Your task to perform on an android device: Go to settings Image 0: 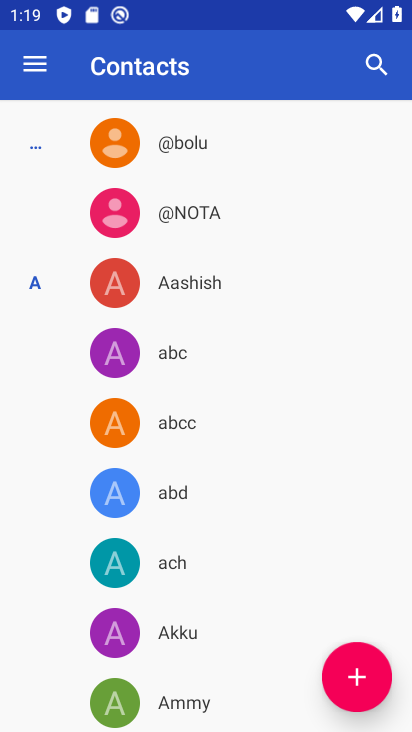
Step 0: press home button
Your task to perform on an android device: Go to settings Image 1: 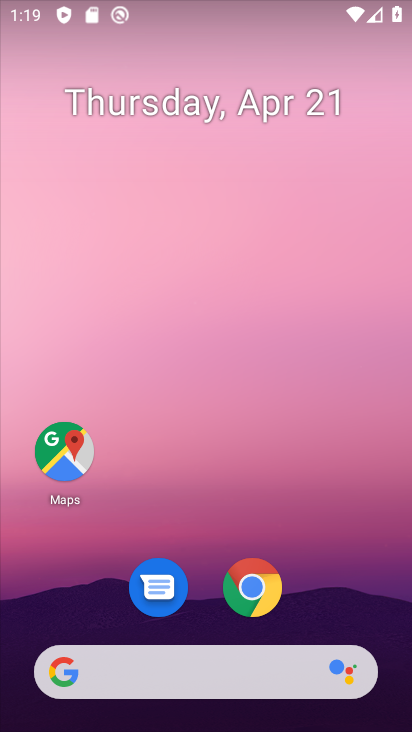
Step 1: drag from (337, 601) to (325, 78)
Your task to perform on an android device: Go to settings Image 2: 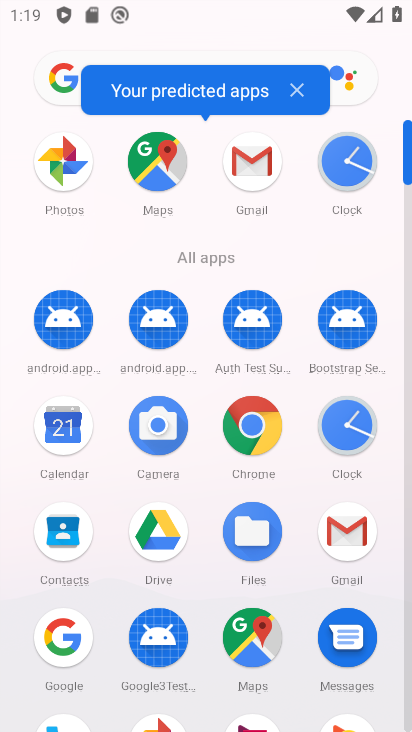
Step 2: click (406, 693)
Your task to perform on an android device: Go to settings Image 3: 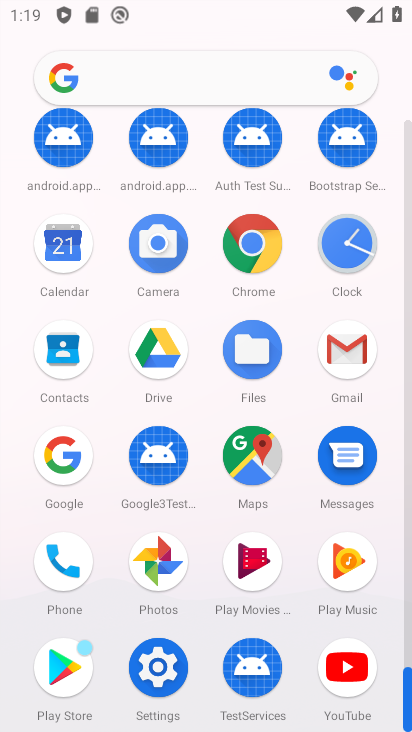
Step 3: click (156, 669)
Your task to perform on an android device: Go to settings Image 4: 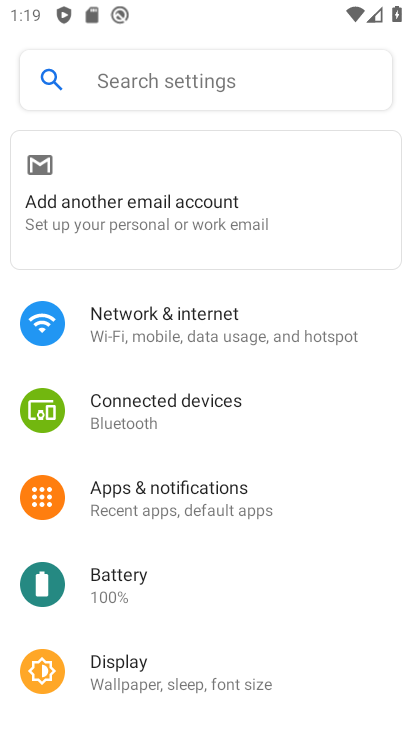
Step 4: task complete